Your task to perform on an android device: turn off notifications in google photos Image 0: 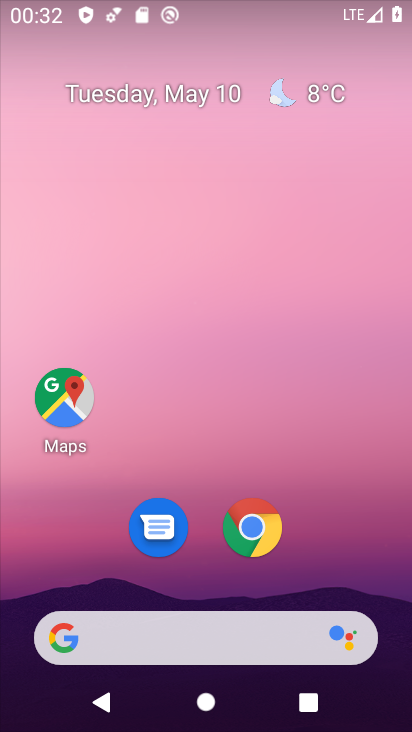
Step 0: drag from (333, 547) to (119, 198)
Your task to perform on an android device: turn off notifications in google photos Image 1: 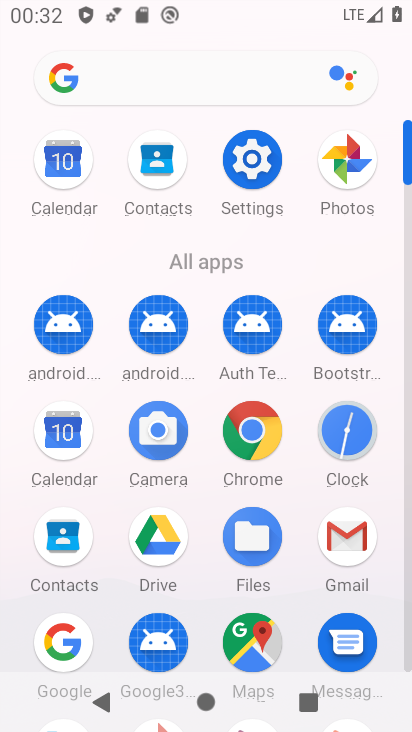
Step 1: click (363, 159)
Your task to perform on an android device: turn off notifications in google photos Image 2: 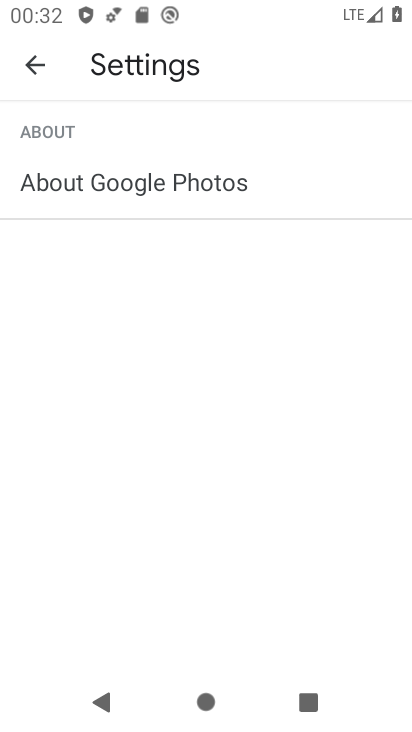
Step 2: press back button
Your task to perform on an android device: turn off notifications in google photos Image 3: 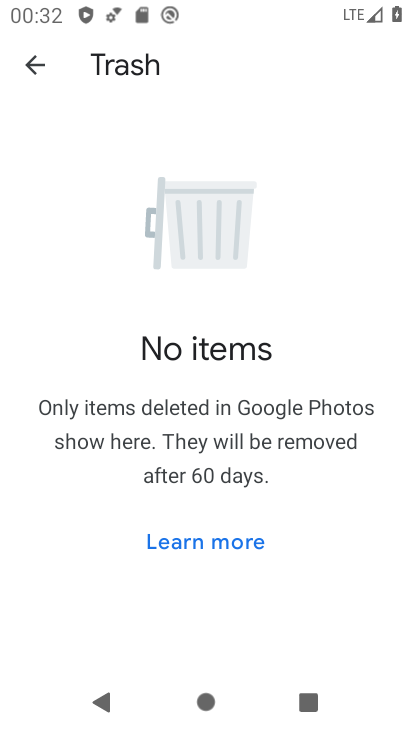
Step 3: press back button
Your task to perform on an android device: turn off notifications in google photos Image 4: 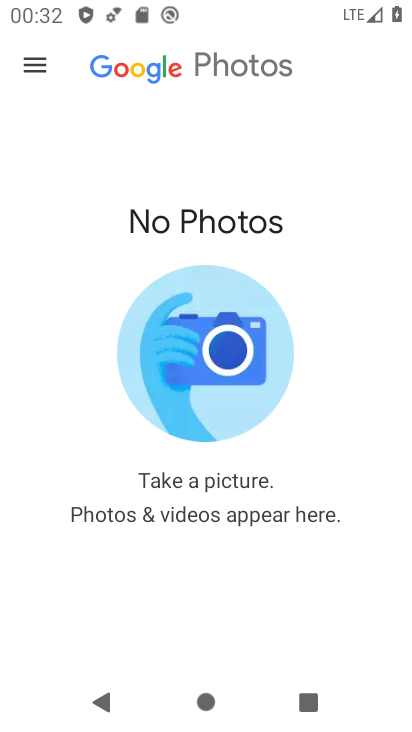
Step 4: press back button
Your task to perform on an android device: turn off notifications in google photos Image 5: 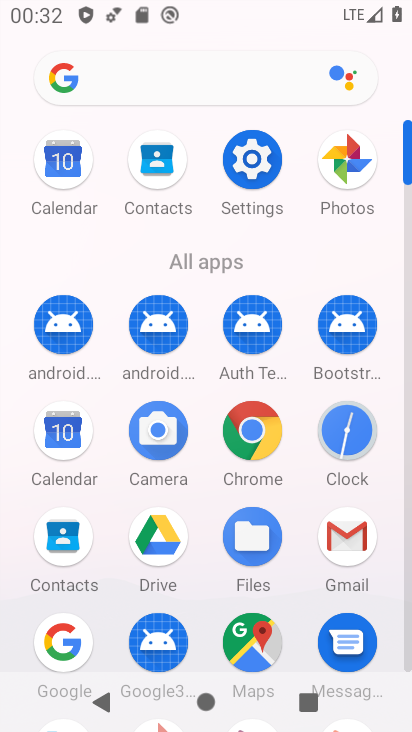
Step 5: click (356, 170)
Your task to perform on an android device: turn off notifications in google photos Image 6: 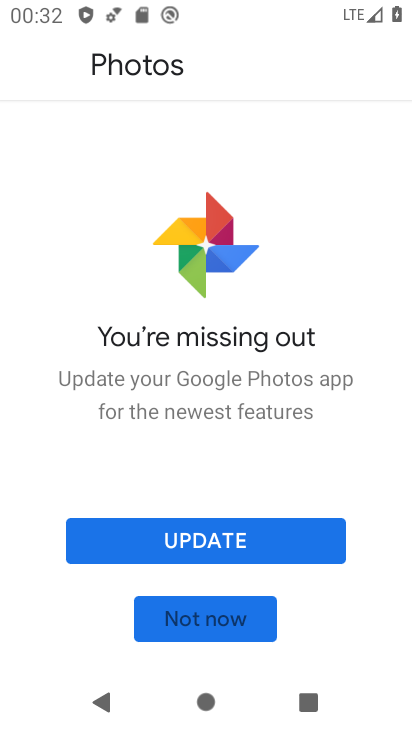
Step 6: click (192, 615)
Your task to perform on an android device: turn off notifications in google photos Image 7: 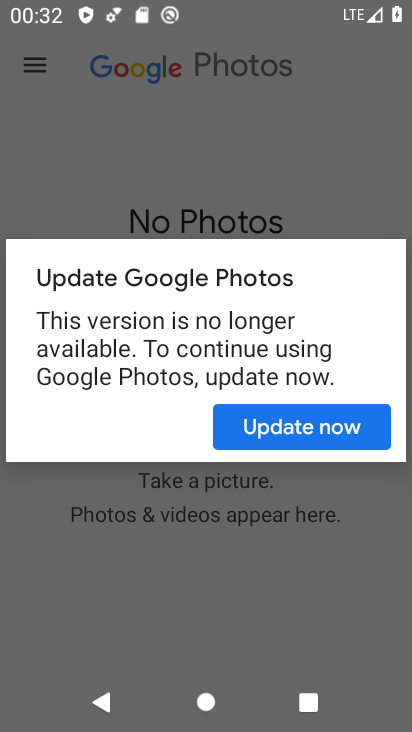
Step 7: click (286, 435)
Your task to perform on an android device: turn off notifications in google photos Image 8: 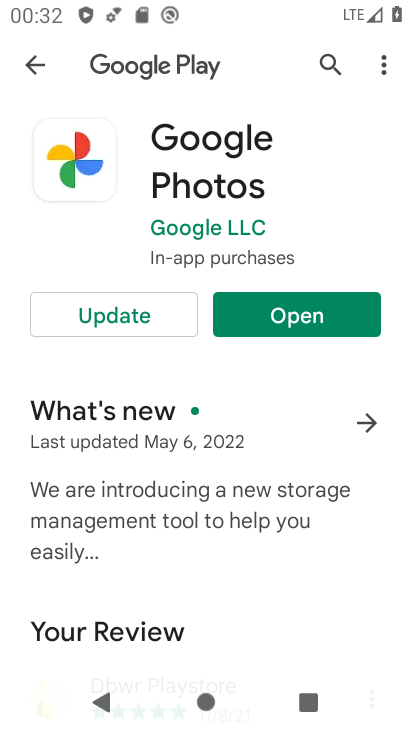
Step 8: click (147, 317)
Your task to perform on an android device: turn off notifications in google photos Image 9: 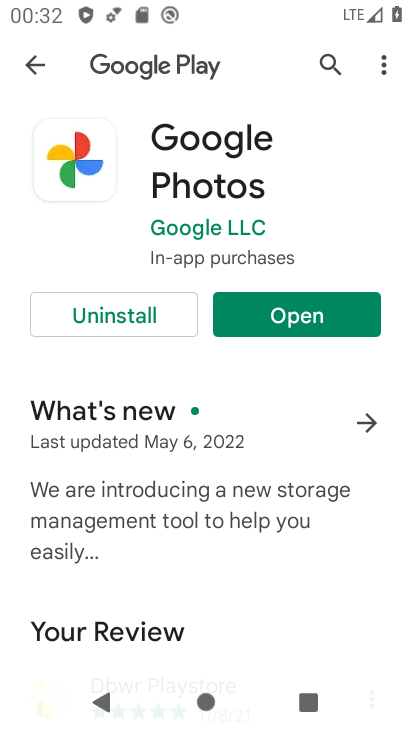
Step 9: click (311, 316)
Your task to perform on an android device: turn off notifications in google photos Image 10: 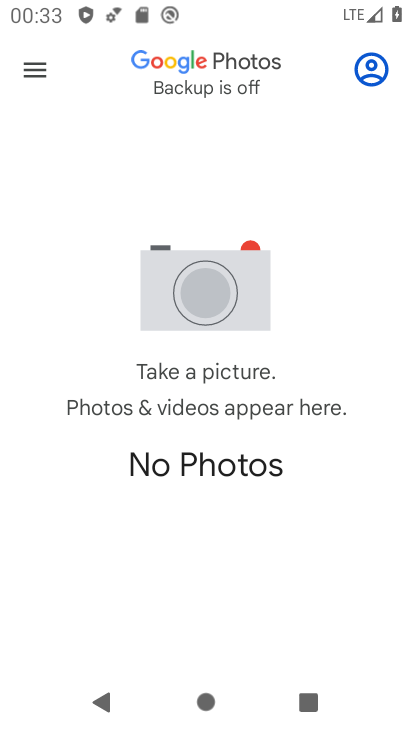
Step 10: click (32, 73)
Your task to perform on an android device: turn off notifications in google photos Image 11: 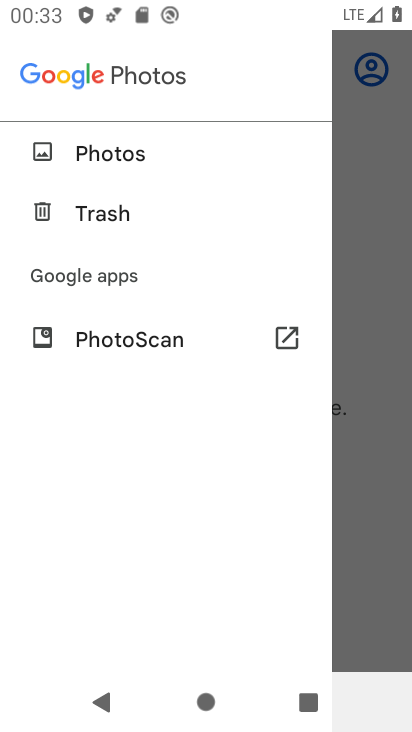
Step 11: click (380, 56)
Your task to perform on an android device: turn off notifications in google photos Image 12: 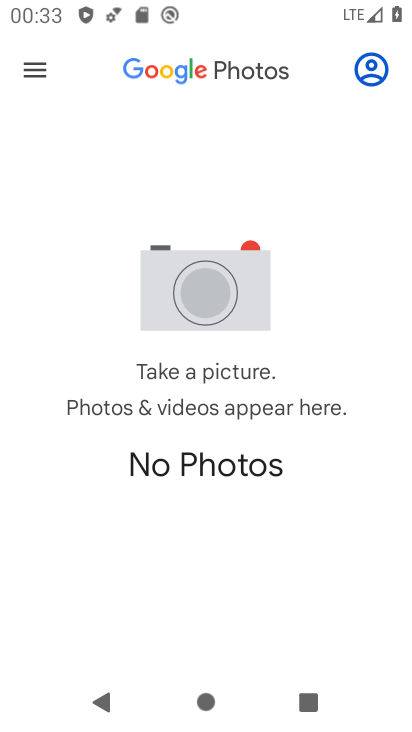
Step 12: click (379, 65)
Your task to perform on an android device: turn off notifications in google photos Image 13: 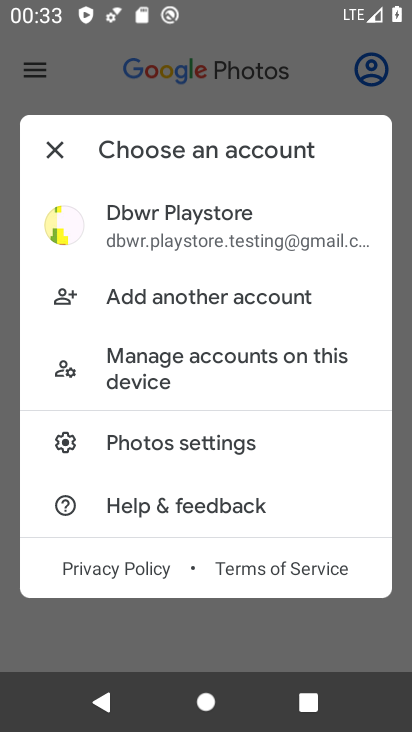
Step 13: click (188, 439)
Your task to perform on an android device: turn off notifications in google photos Image 14: 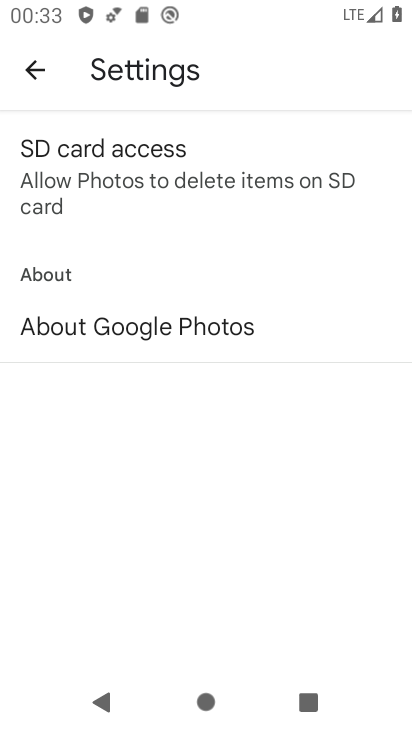
Step 14: click (114, 167)
Your task to perform on an android device: turn off notifications in google photos Image 15: 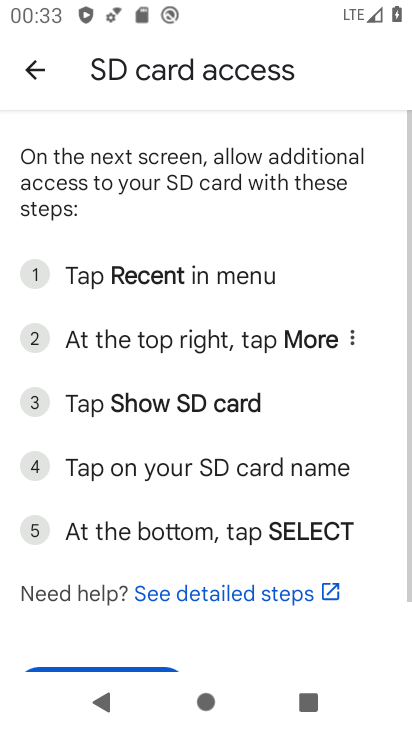
Step 15: click (34, 84)
Your task to perform on an android device: turn off notifications in google photos Image 16: 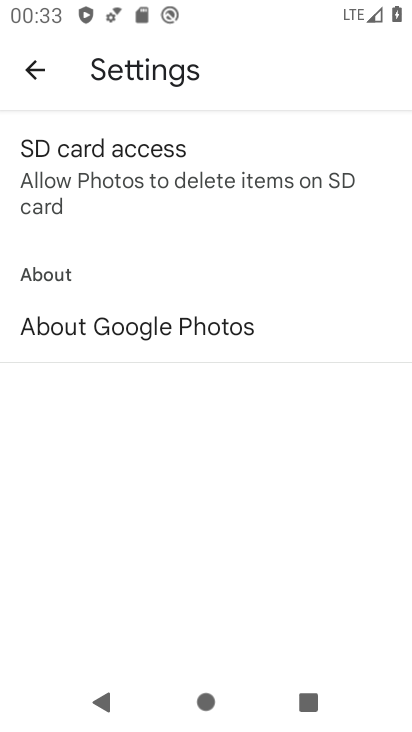
Step 16: drag from (155, 523) to (171, 261)
Your task to perform on an android device: turn off notifications in google photos Image 17: 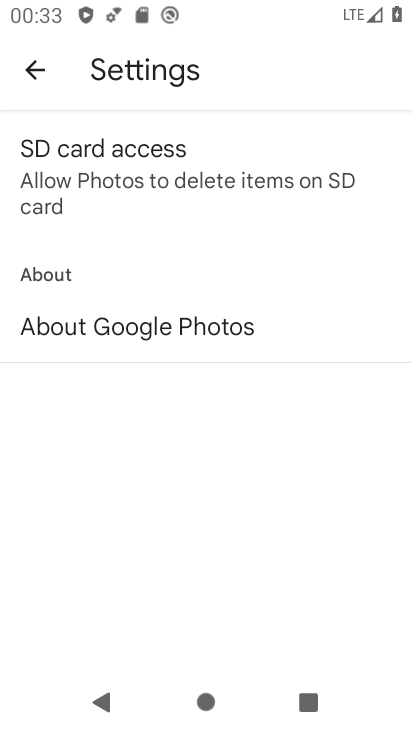
Step 17: click (161, 323)
Your task to perform on an android device: turn off notifications in google photos Image 18: 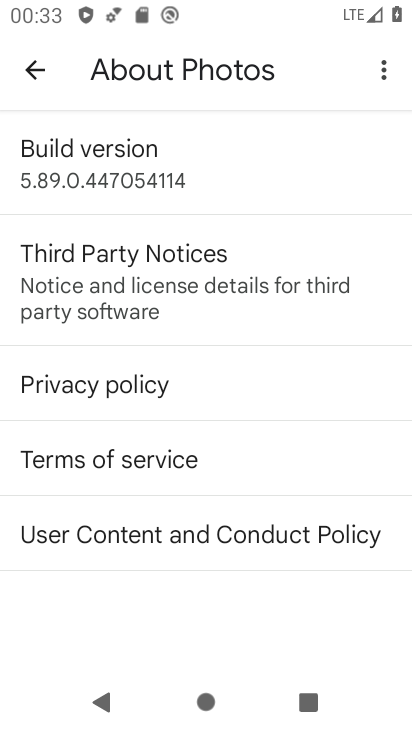
Step 18: click (38, 69)
Your task to perform on an android device: turn off notifications in google photos Image 19: 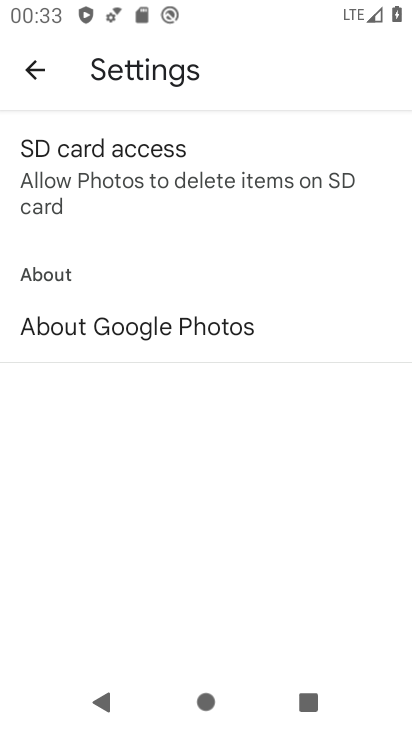
Step 19: click (38, 69)
Your task to perform on an android device: turn off notifications in google photos Image 20: 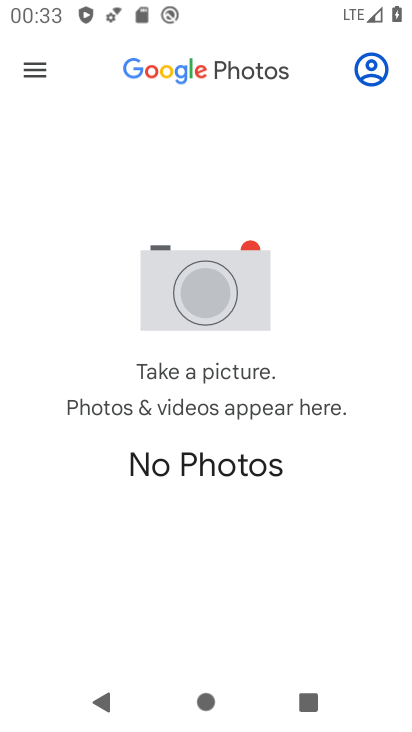
Step 20: click (36, 71)
Your task to perform on an android device: turn off notifications in google photos Image 21: 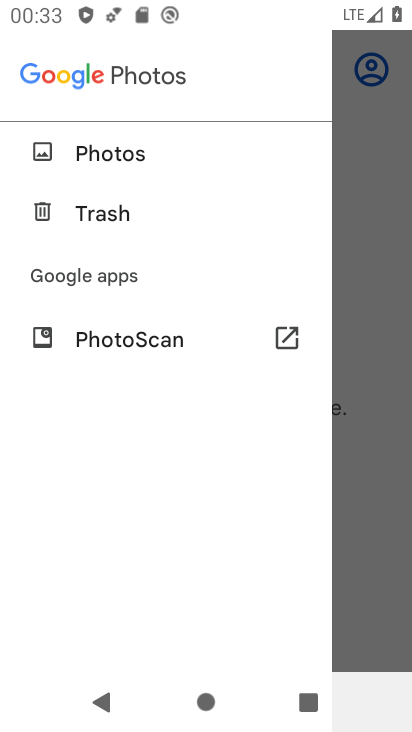
Step 21: task complete